Your task to perform on an android device: What is the recent news? Image 0: 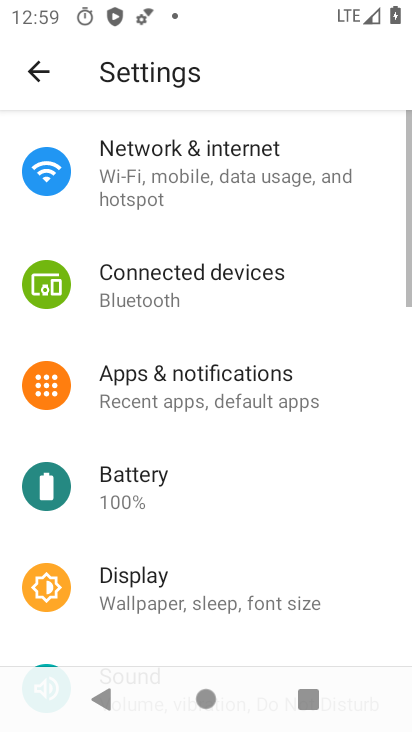
Step 0: press home button
Your task to perform on an android device: What is the recent news? Image 1: 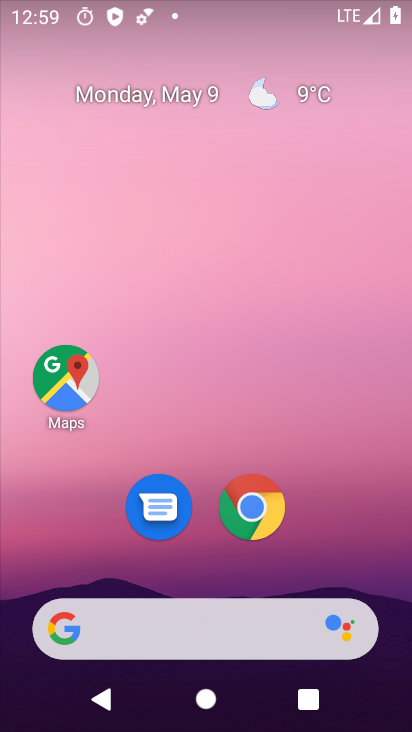
Step 1: task complete